Your task to perform on an android device: Go to privacy settings Image 0: 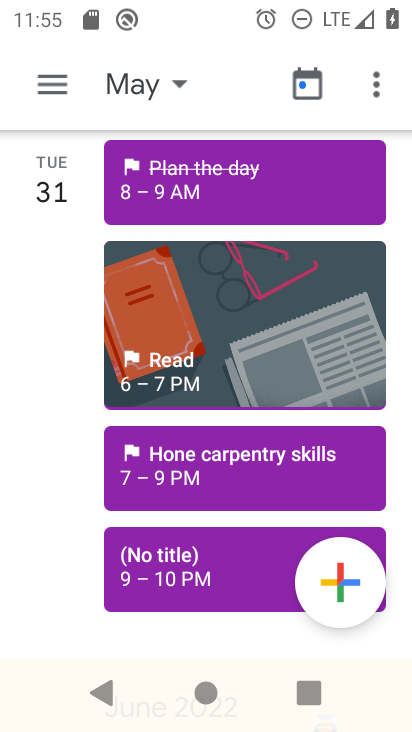
Step 0: press home button
Your task to perform on an android device: Go to privacy settings Image 1: 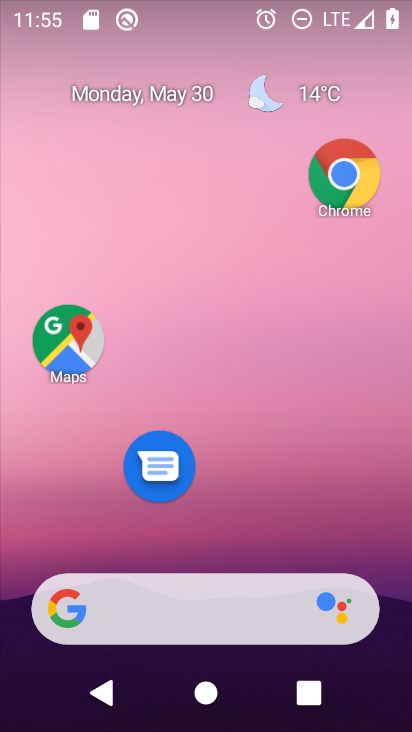
Step 1: drag from (237, 534) to (270, 5)
Your task to perform on an android device: Go to privacy settings Image 2: 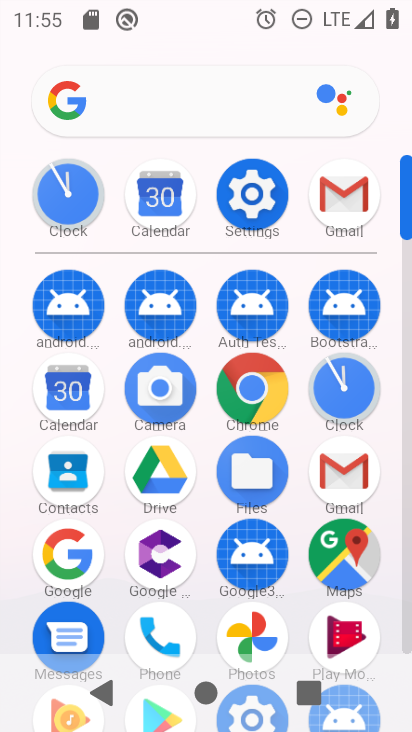
Step 2: click (253, 214)
Your task to perform on an android device: Go to privacy settings Image 3: 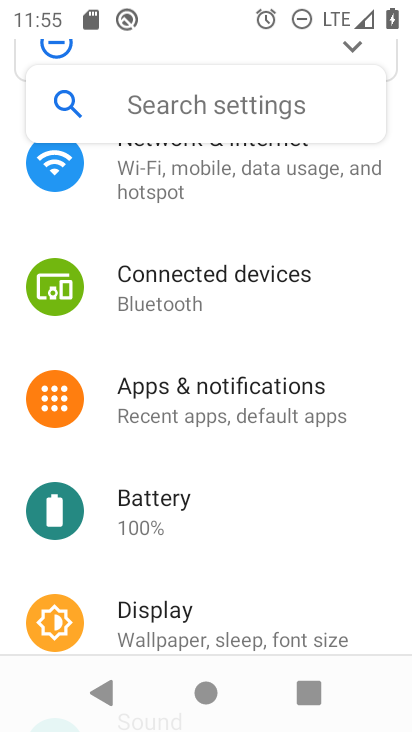
Step 3: drag from (250, 554) to (289, 222)
Your task to perform on an android device: Go to privacy settings Image 4: 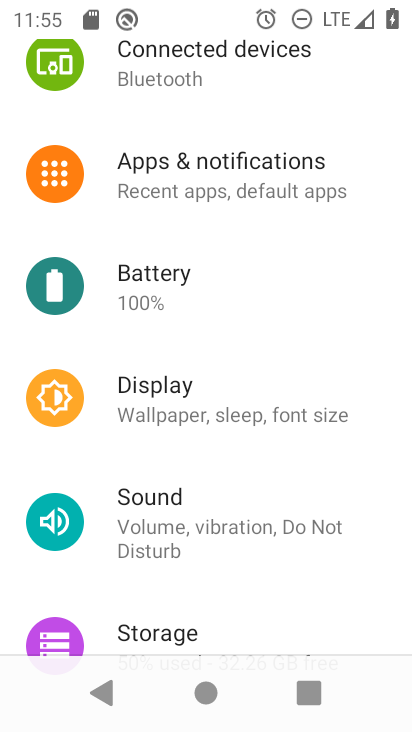
Step 4: drag from (224, 564) to (301, 95)
Your task to perform on an android device: Go to privacy settings Image 5: 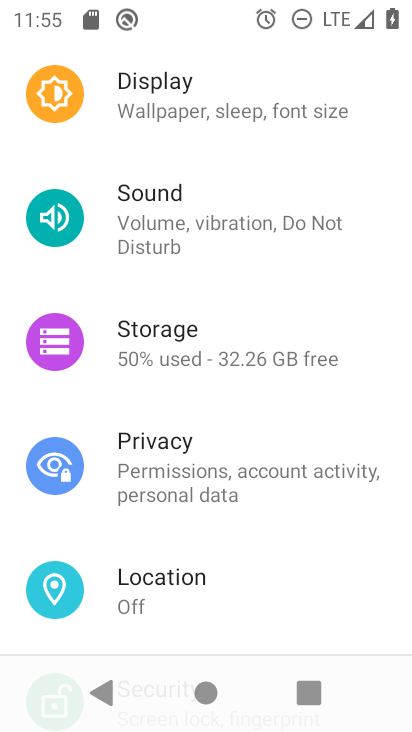
Step 5: click (188, 475)
Your task to perform on an android device: Go to privacy settings Image 6: 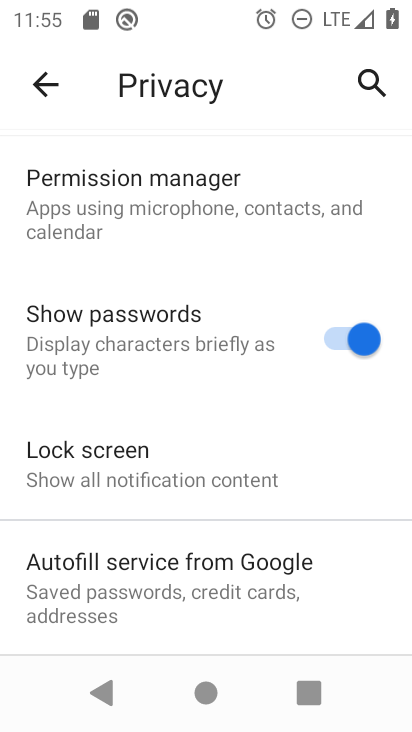
Step 6: task complete